Your task to perform on an android device: turn on showing notifications on the lock screen Image 0: 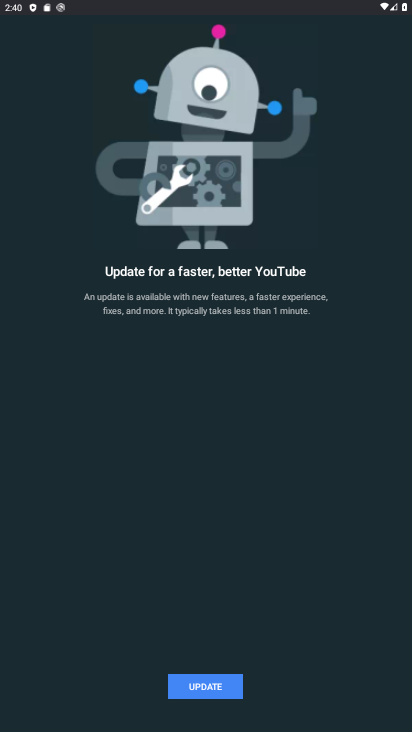
Step 0: press back button
Your task to perform on an android device: turn on showing notifications on the lock screen Image 1: 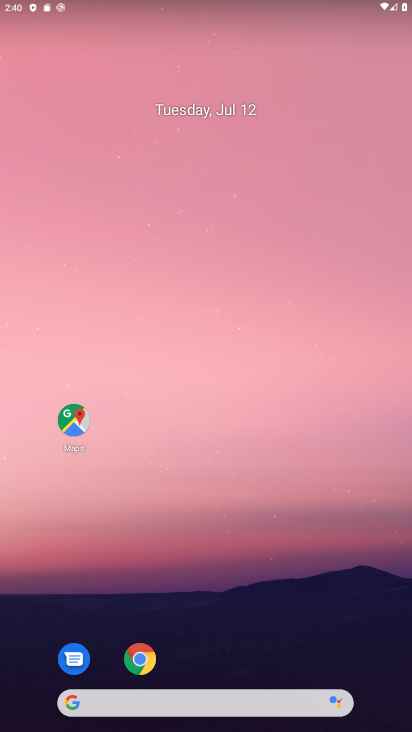
Step 1: drag from (199, 463) to (88, 155)
Your task to perform on an android device: turn on showing notifications on the lock screen Image 2: 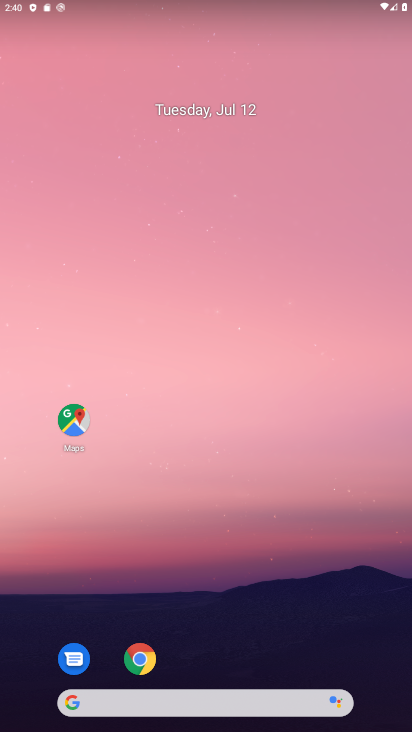
Step 2: drag from (234, 591) to (133, 32)
Your task to perform on an android device: turn on showing notifications on the lock screen Image 3: 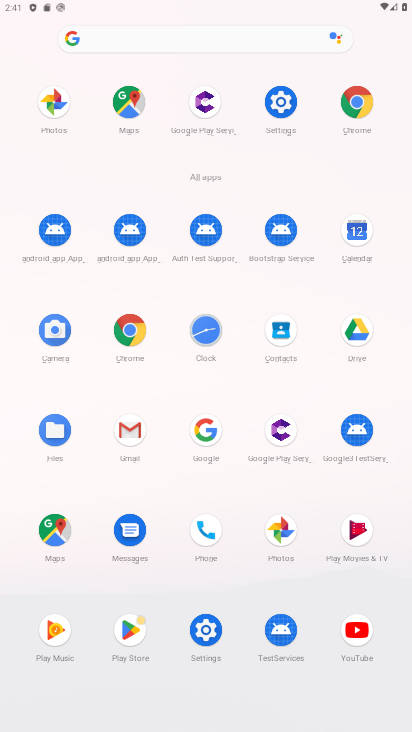
Step 3: click (212, 628)
Your task to perform on an android device: turn on showing notifications on the lock screen Image 4: 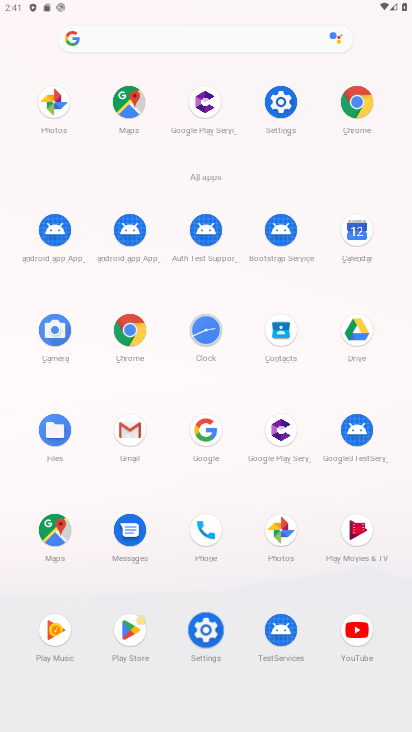
Step 4: click (210, 623)
Your task to perform on an android device: turn on showing notifications on the lock screen Image 5: 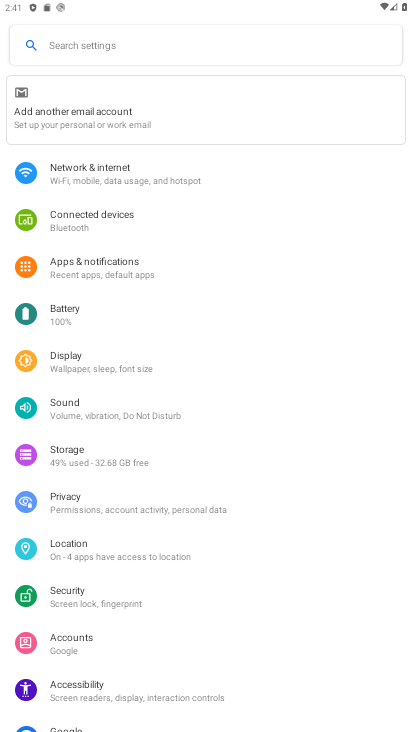
Step 5: click (101, 269)
Your task to perform on an android device: turn on showing notifications on the lock screen Image 6: 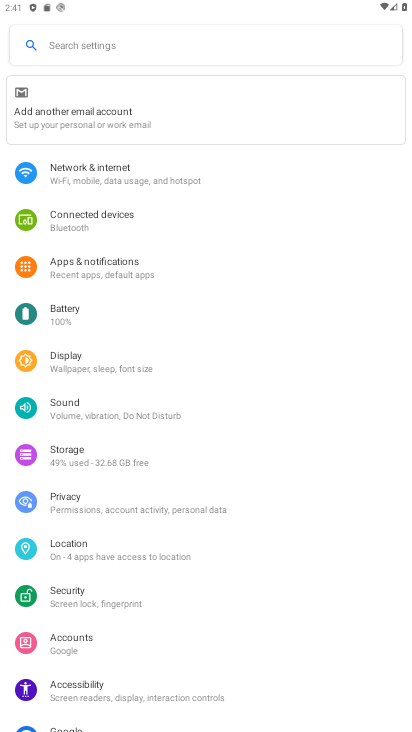
Step 6: click (98, 272)
Your task to perform on an android device: turn on showing notifications on the lock screen Image 7: 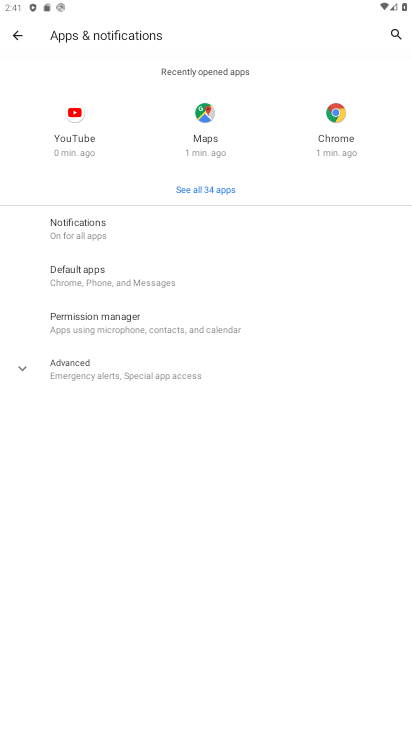
Step 7: click (76, 230)
Your task to perform on an android device: turn on showing notifications on the lock screen Image 8: 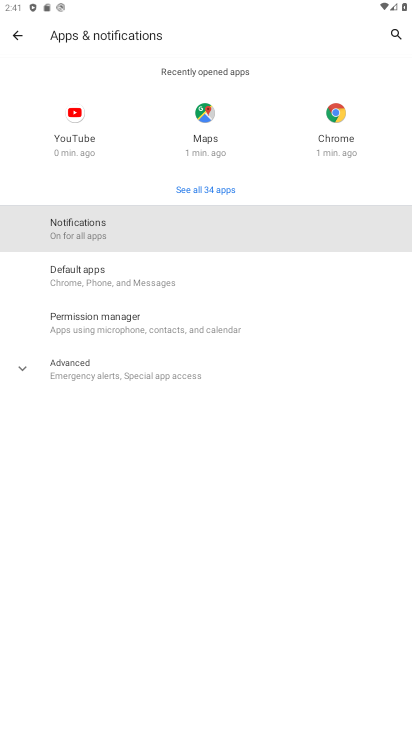
Step 8: click (76, 229)
Your task to perform on an android device: turn on showing notifications on the lock screen Image 9: 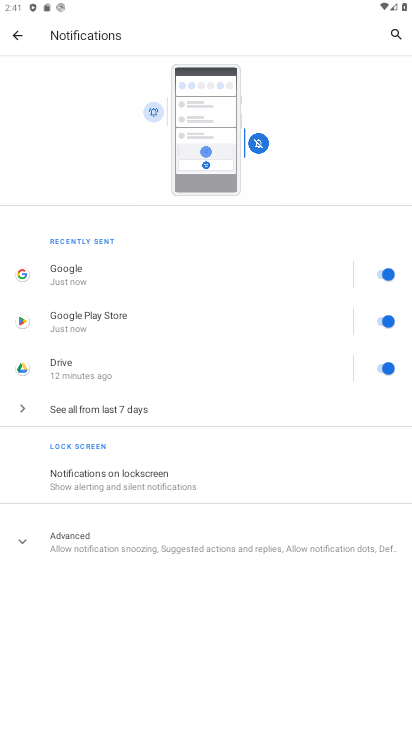
Step 9: click (90, 482)
Your task to perform on an android device: turn on showing notifications on the lock screen Image 10: 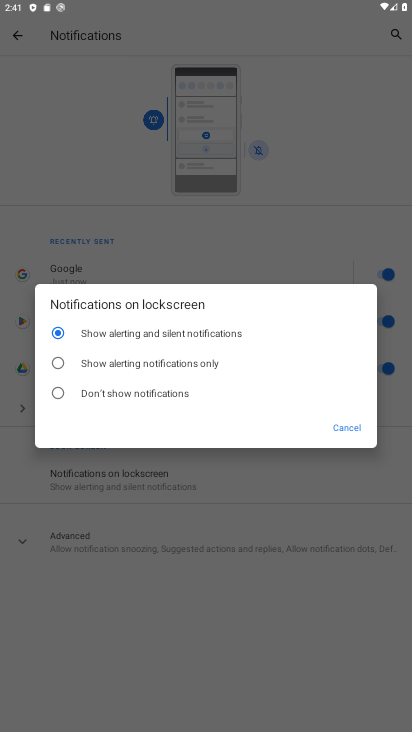
Step 10: click (353, 429)
Your task to perform on an android device: turn on showing notifications on the lock screen Image 11: 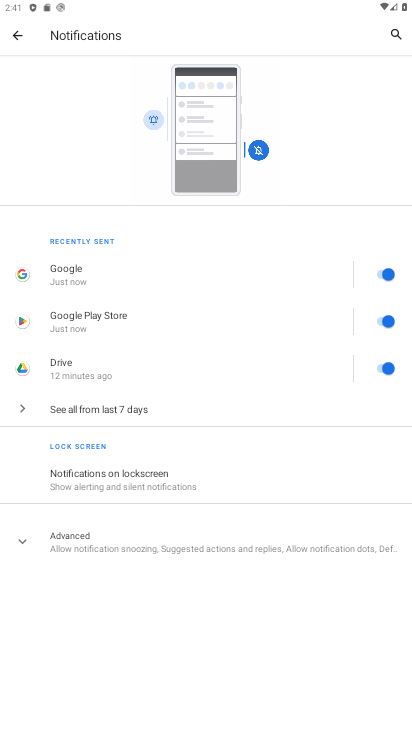
Step 11: task complete